Your task to perform on an android device: read, delete, or share a saved page in the chrome app Image 0: 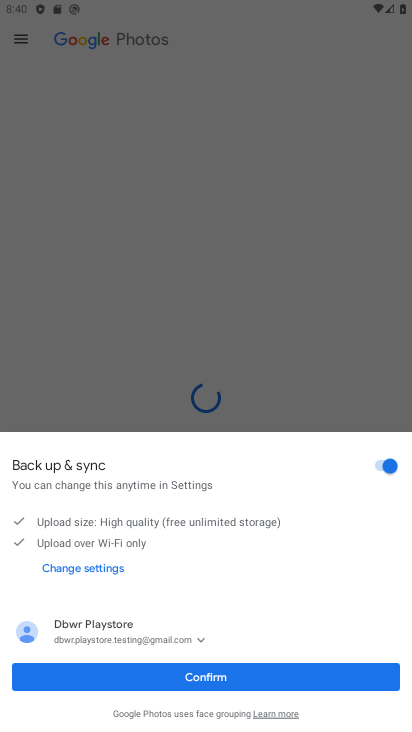
Step 0: press home button
Your task to perform on an android device: read, delete, or share a saved page in the chrome app Image 1: 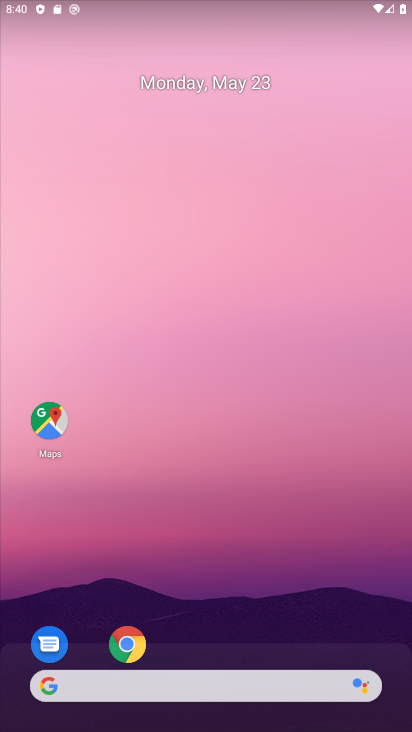
Step 1: click (122, 637)
Your task to perform on an android device: read, delete, or share a saved page in the chrome app Image 2: 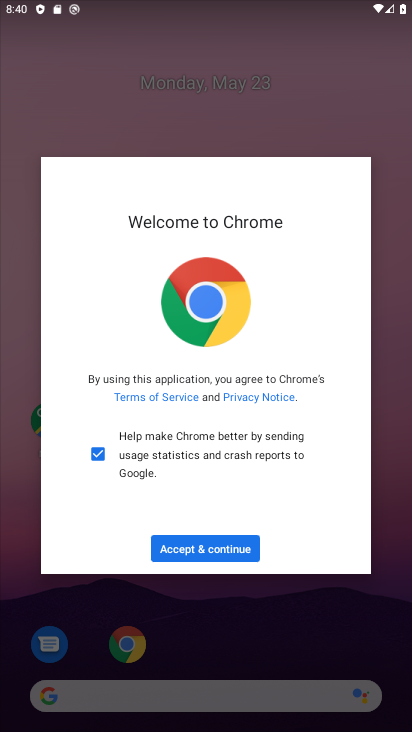
Step 2: click (217, 547)
Your task to perform on an android device: read, delete, or share a saved page in the chrome app Image 3: 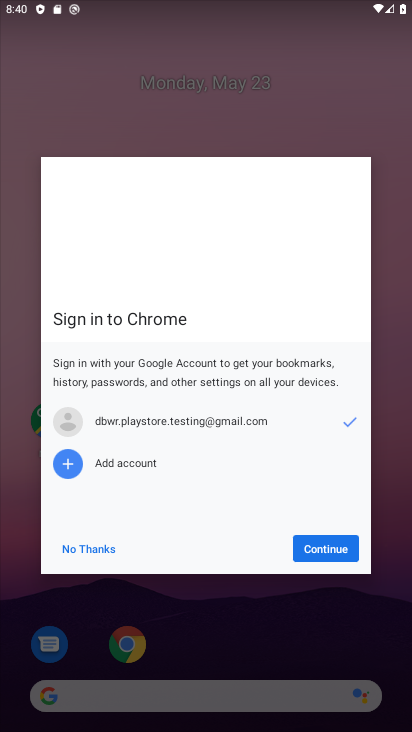
Step 3: click (328, 545)
Your task to perform on an android device: read, delete, or share a saved page in the chrome app Image 4: 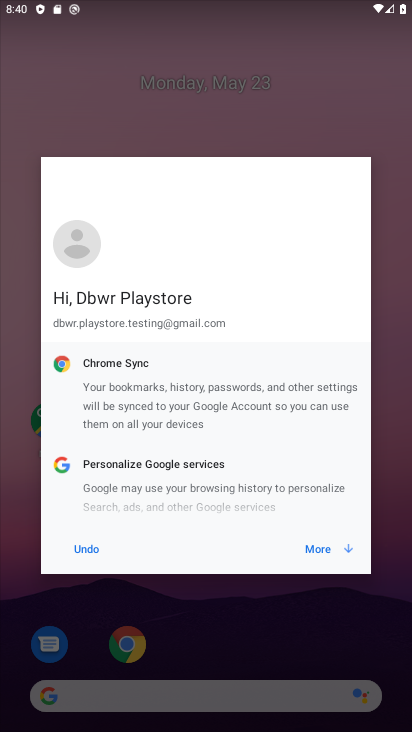
Step 4: click (328, 545)
Your task to perform on an android device: read, delete, or share a saved page in the chrome app Image 5: 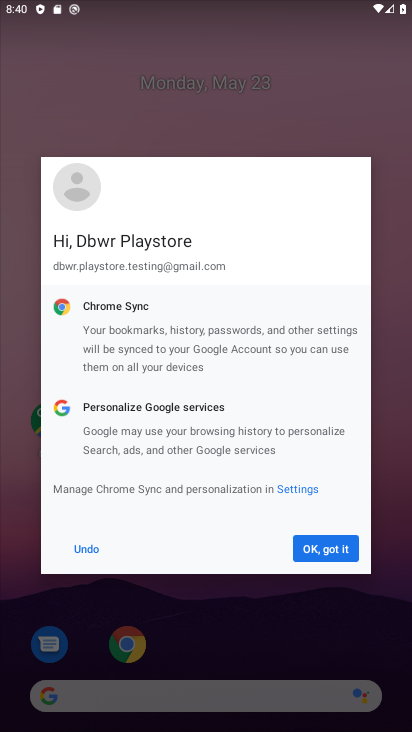
Step 5: click (328, 545)
Your task to perform on an android device: read, delete, or share a saved page in the chrome app Image 6: 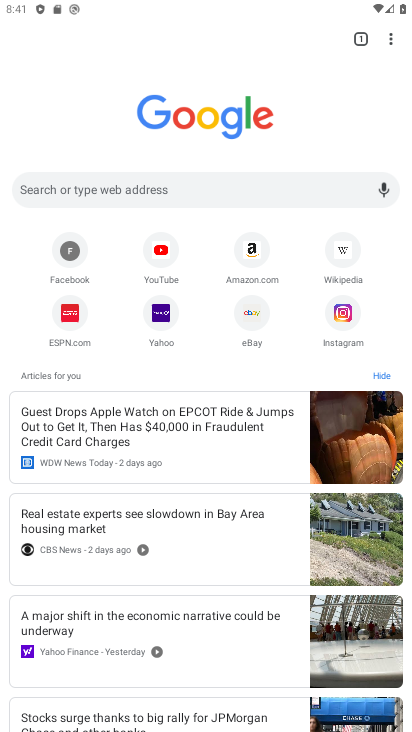
Step 6: click (389, 34)
Your task to perform on an android device: read, delete, or share a saved page in the chrome app Image 7: 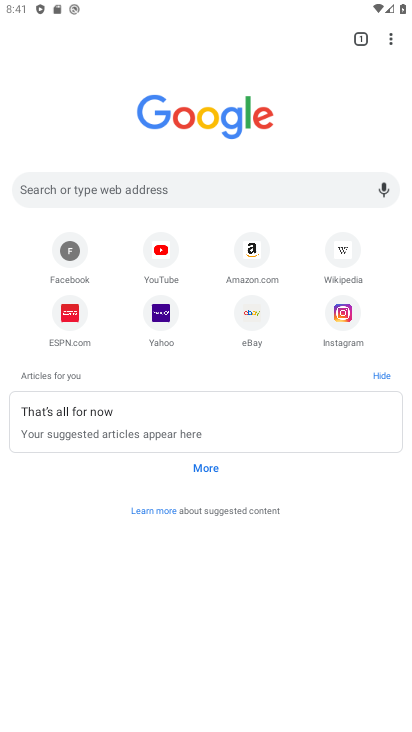
Step 7: click (391, 34)
Your task to perform on an android device: read, delete, or share a saved page in the chrome app Image 8: 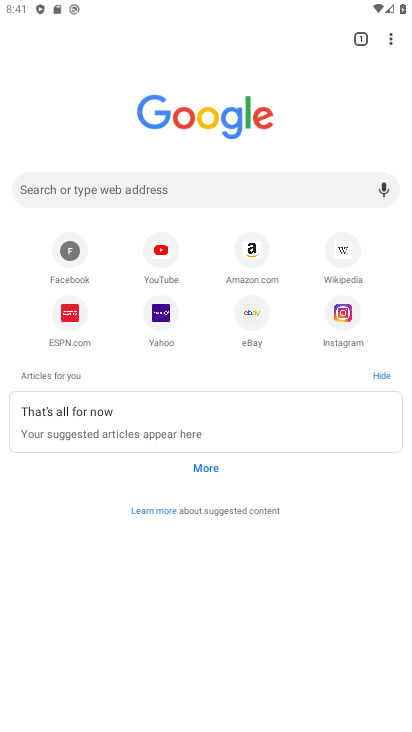
Step 8: click (390, 33)
Your task to perform on an android device: read, delete, or share a saved page in the chrome app Image 9: 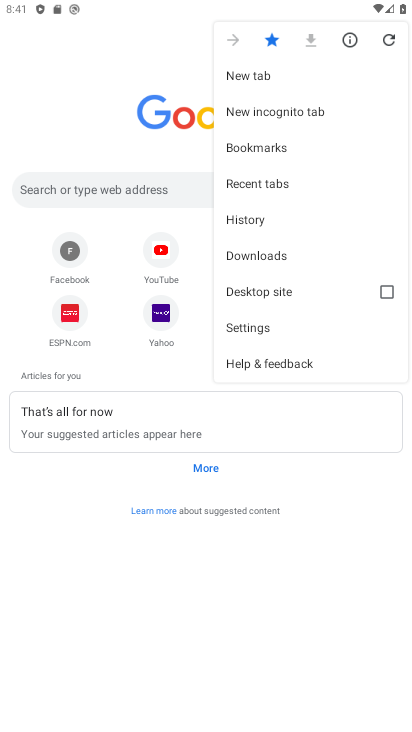
Step 9: click (295, 253)
Your task to perform on an android device: read, delete, or share a saved page in the chrome app Image 10: 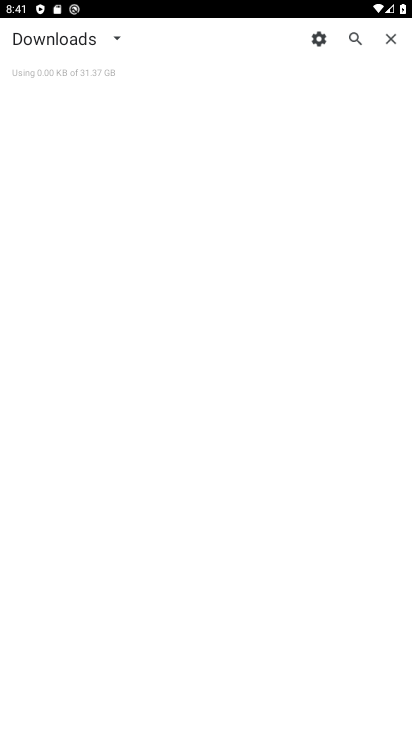
Step 10: task complete